Your task to perform on an android device: change notification settings in the gmail app Image 0: 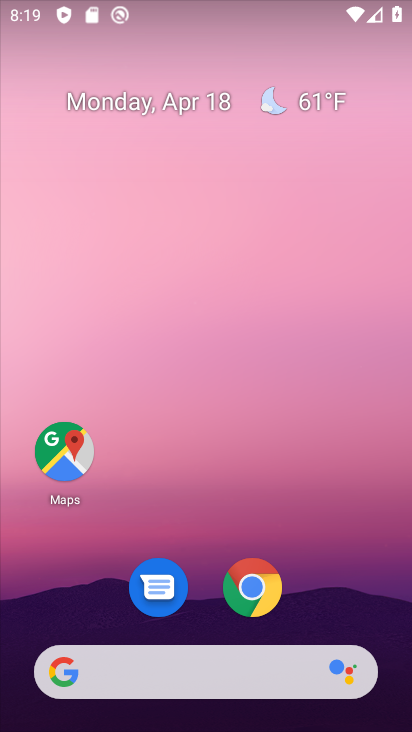
Step 0: drag from (202, 717) to (204, 83)
Your task to perform on an android device: change notification settings in the gmail app Image 1: 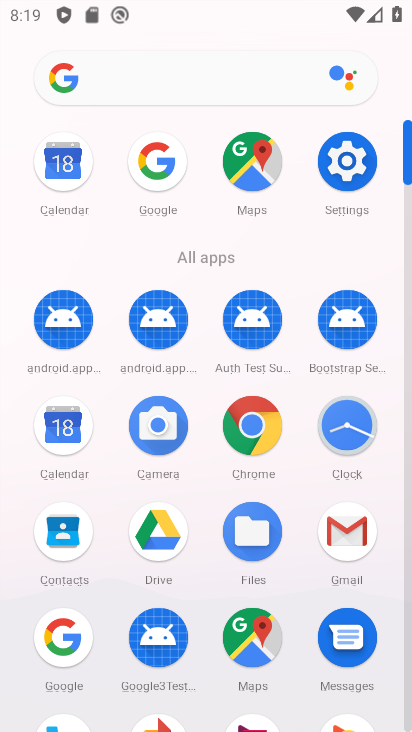
Step 1: click (344, 527)
Your task to perform on an android device: change notification settings in the gmail app Image 2: 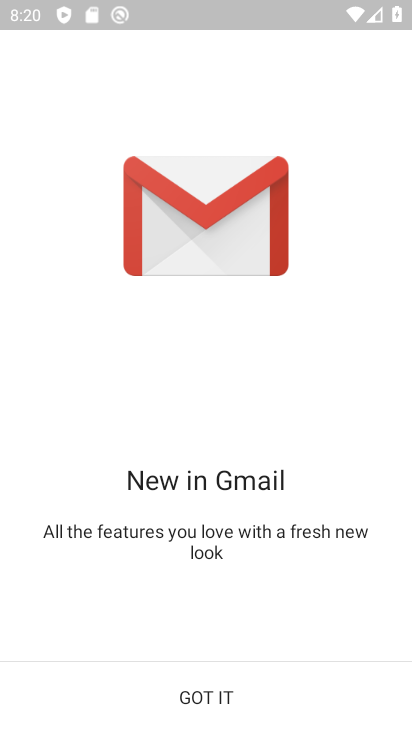
Step 2: click (206, 692)
Your task to perform on an android device: change notification settings in the gmail app Image 3: 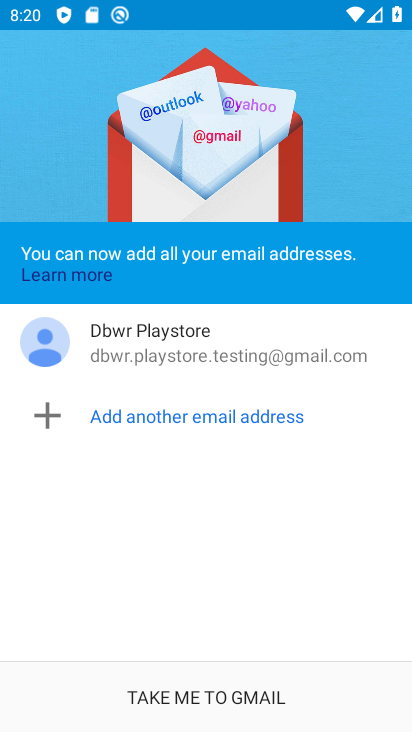
Step 3: click (224, 689)
Your task to perform on an android device: change notification settings in the gmail app Image 4: 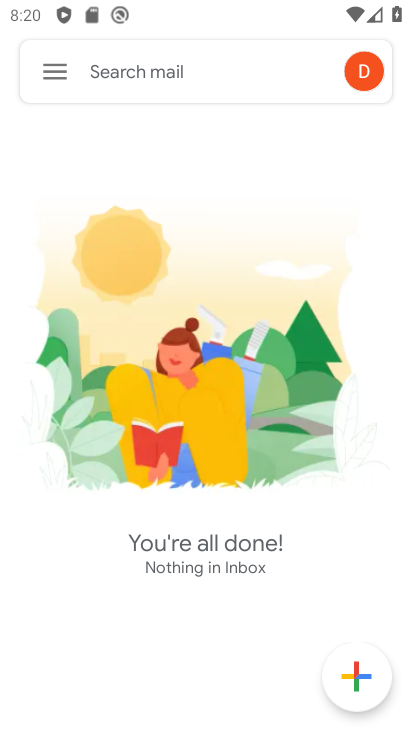
Step 4: click (53, 68)
Your task to perform on an android device: change notification settings in the gmail app Image 5: 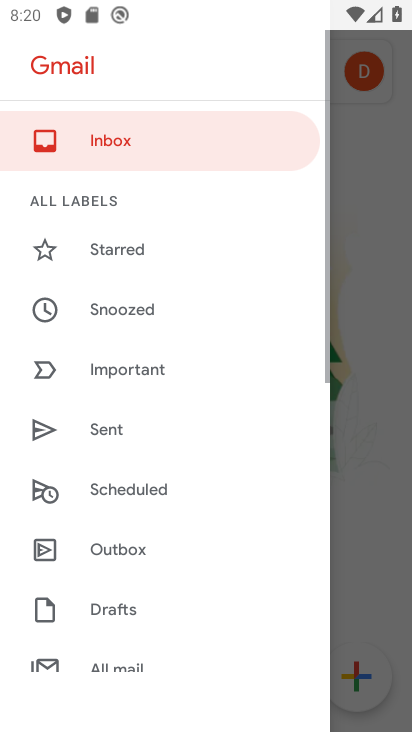
Step 5: drag from (145, 637) to (189, 160)
Your task to perform on an android device: change notification settings in the gmail app Image 6: 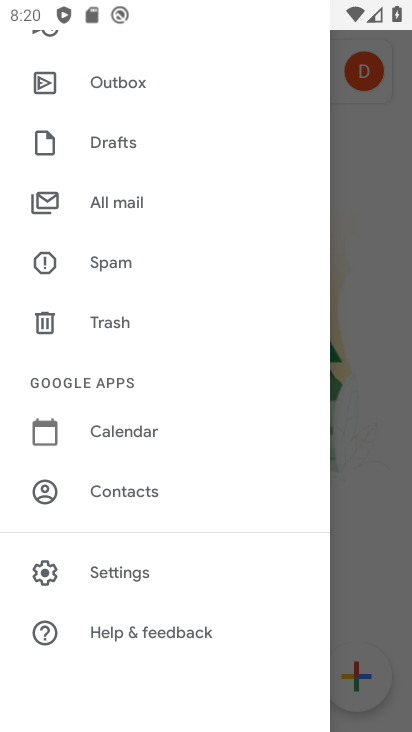
Step 6: click (119, 574)
Your task to perform on an android device: change notification settings in the gmail app Image 7: 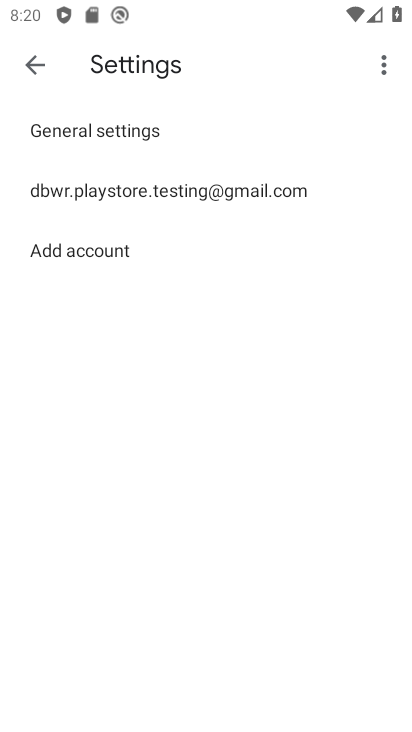
Step 7: click (265, 191)
Your task to perform on an android device: change notification settings in the gmail app Image 8: 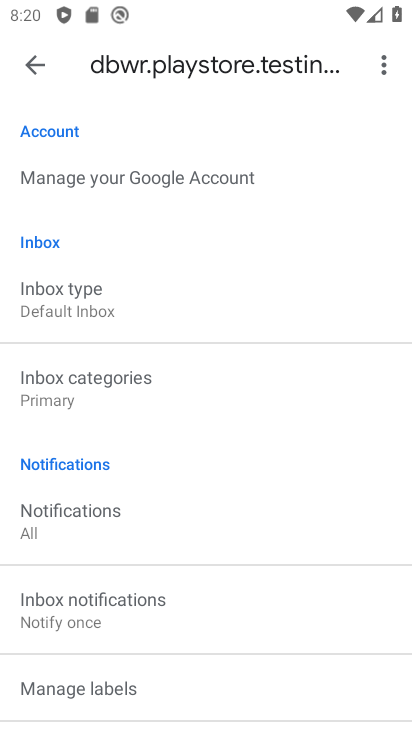
Step 8: drag from (192, 606) to (185, 494)
Your task to perform on an android device: change notification settings in the gmail app Image 9: 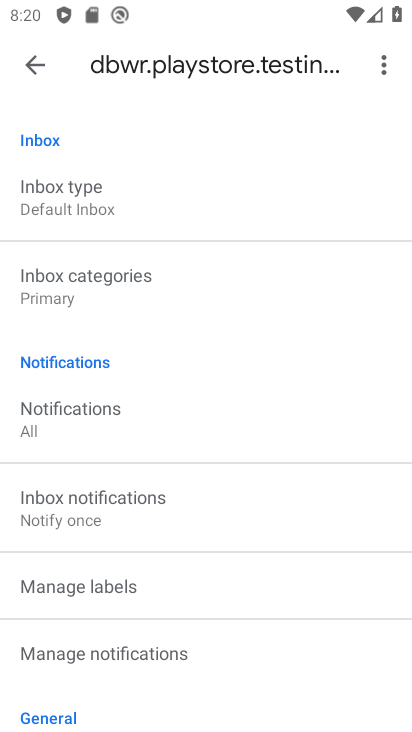
Step 9: click (101, 410)
Your task to perform on an android device: change notification settings in the gmail app Image 10: 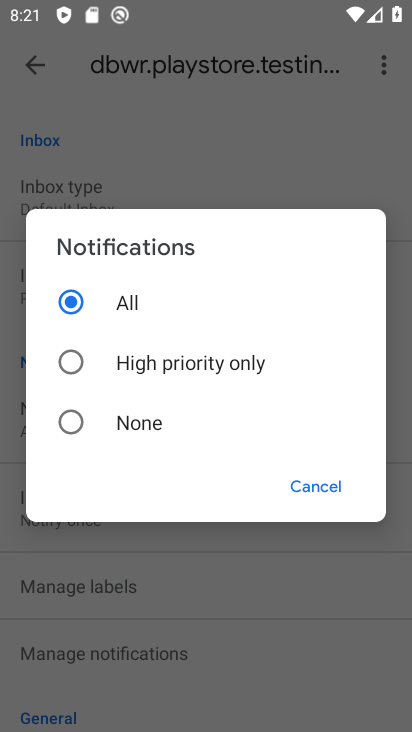
Step 10: click (70, 364)
Your task to perform on an android device: change notification settings in the gmail app Image 11: 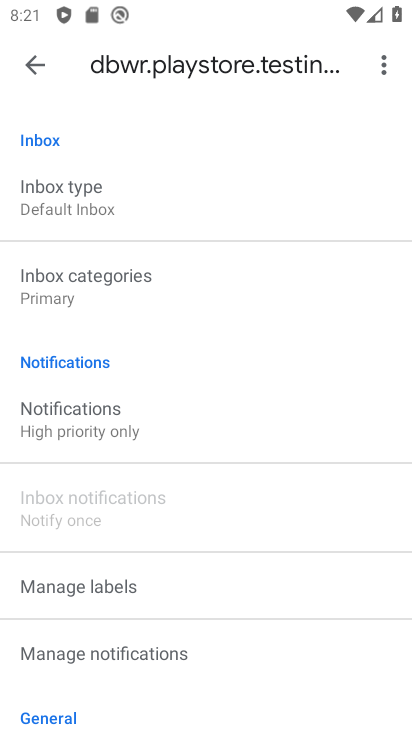
Step 11: task complete